Your task to perform on an android device: Go to display settings Image 0: 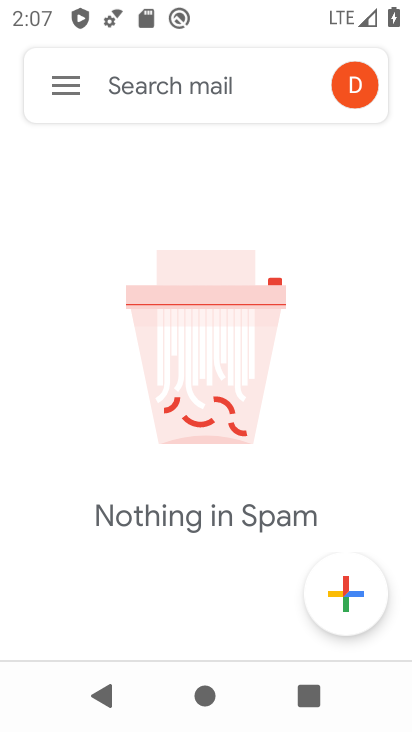
Step 0: press home button
Your task to perform on an android device: Go to display settings Image 1: 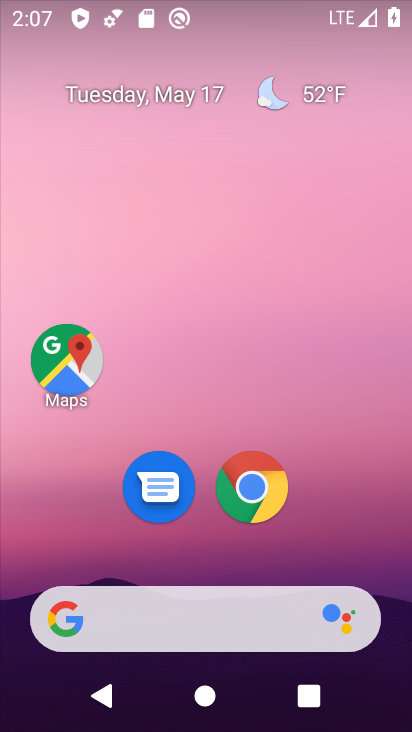
Step 1: drag from (401, 635) to (331, 253)
Your task to perform on an android device: Go to display settings Image 2: 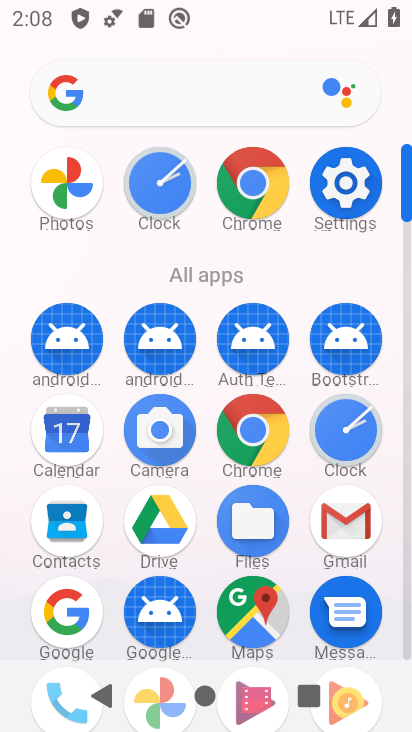
Step 2: click (351, 183)
Your task to perform on an android device: Go to display settings Image 3: 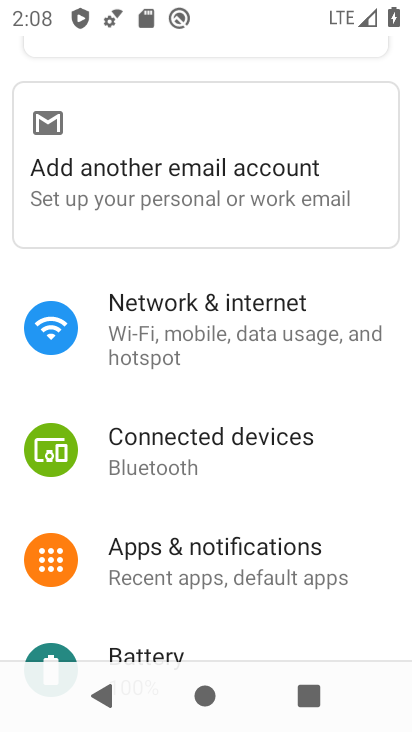
Step 3: drag from (288, 603) to (289, 404)
Your task to perform on an android device: Go to display settings Image 4: 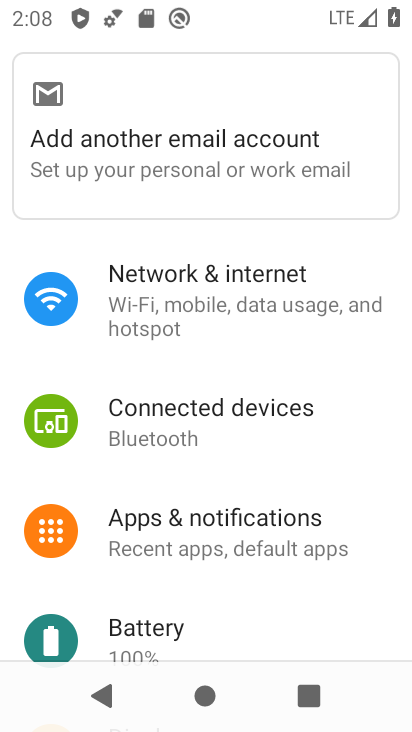
Step 4: drag from (238, 624) to (210, 407)
Your task to perform on an android device: Go to display settings Image 5: 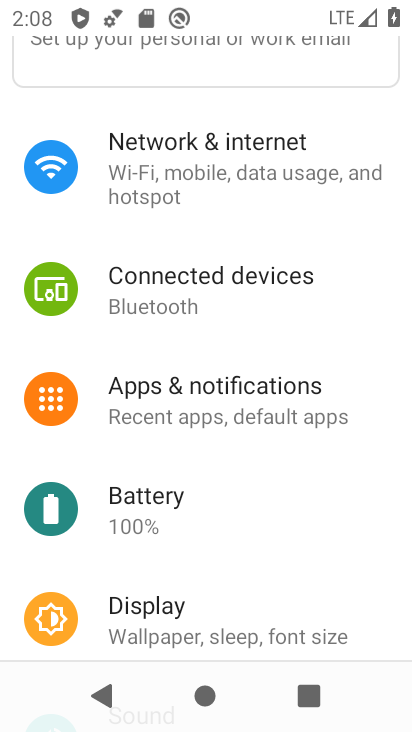
Step 5: drag from (292, 594) to (297, 388)
Your task to perform on an android device: Go to display settings Image 6: 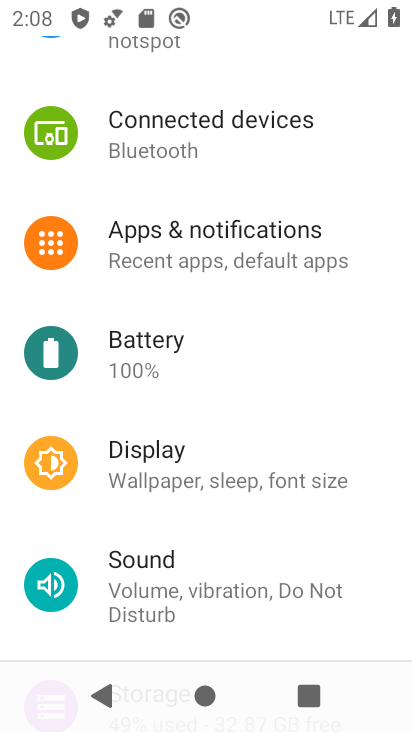
Step 6: drag from (338, 625) to (319, 416)
Your task to perform on an android device: Go to display settings Image 7: 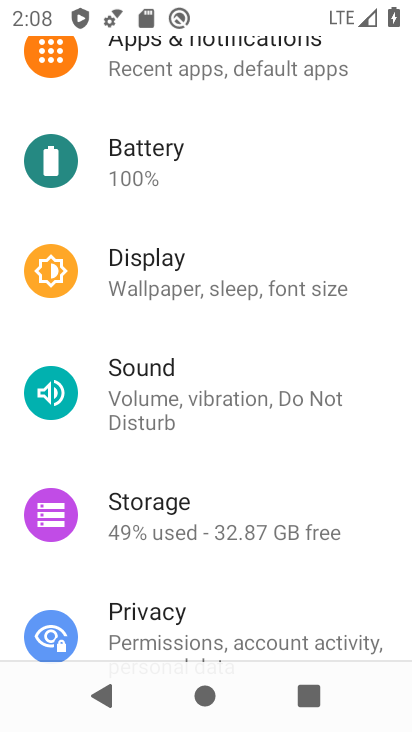
Step 7: click (137, 264)
Your task to perform on an android device: Go to display settings Image 8: 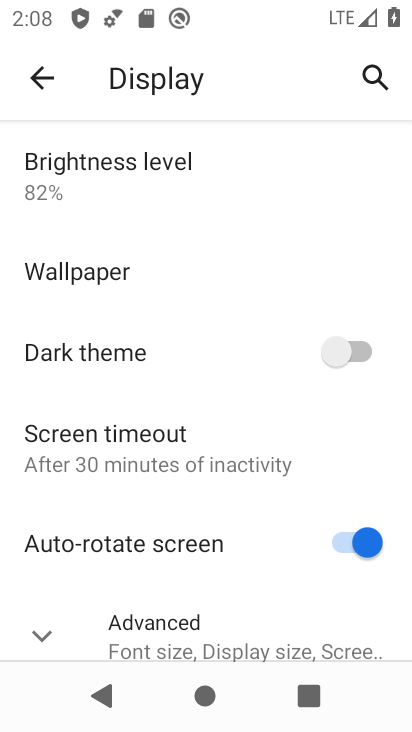
Step 8: task complete